Your task to perform on an android device: Open the Play Movies app and select the watchlist tab. Image 0: 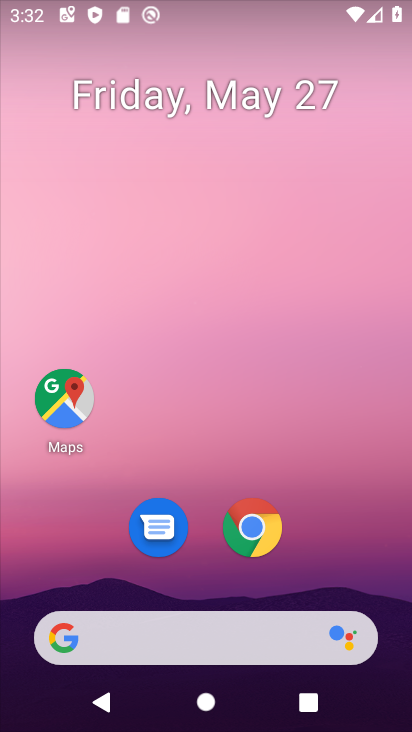
Step 0: drag from (390, 597) to (169, 0)
Your task to perform on an android device: Open the Play Movies app and select the watchlist tab. Image 1: 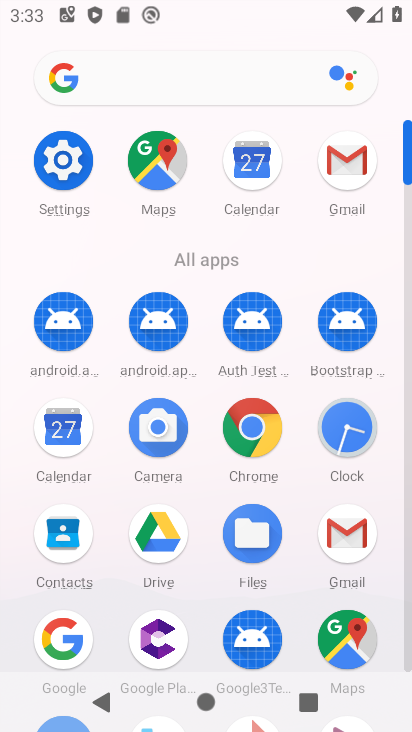
Step 1: click (410, 668)
Your task to perform on an android device: Open the Play Movies app and select the watchlist tab. Image 2: 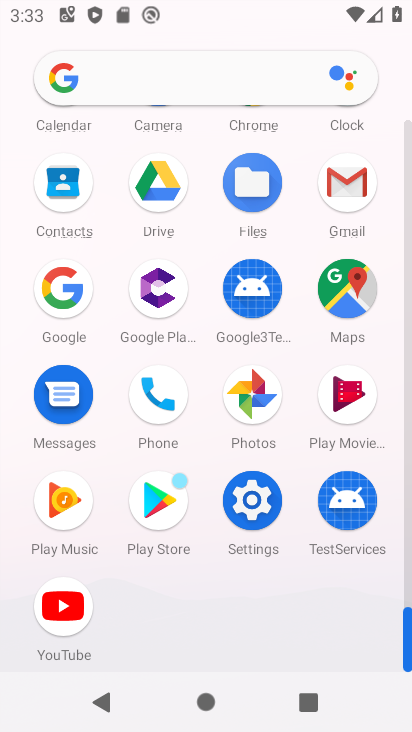
Step 2: click (343, 430)
Your task to perform on an android device: Open the Play Movies app and select the watchlist tab. Image 3: 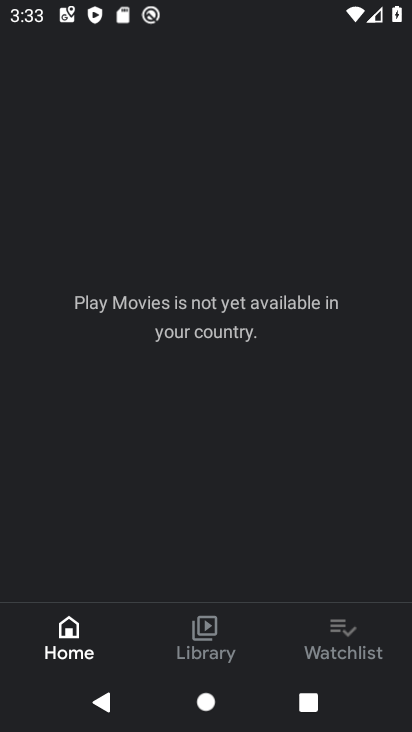
Step 3: click (376, 647)
Your task to perform on an android device: Open the Play Movies app and select the watchlist tab. Image 4: 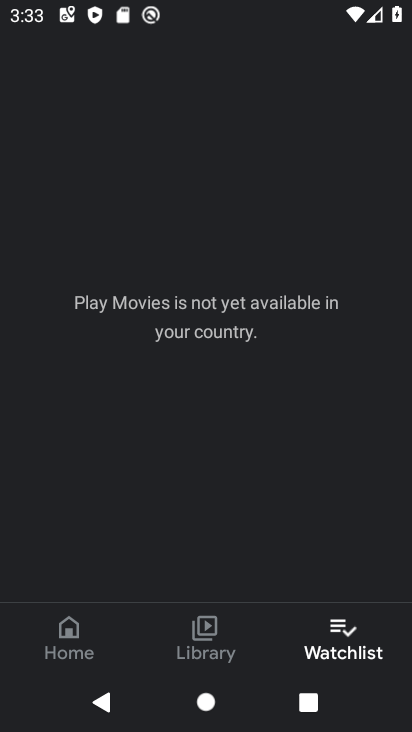
Step 4: task complete